Your task to perform on an android device: Open battery settings Image 0: 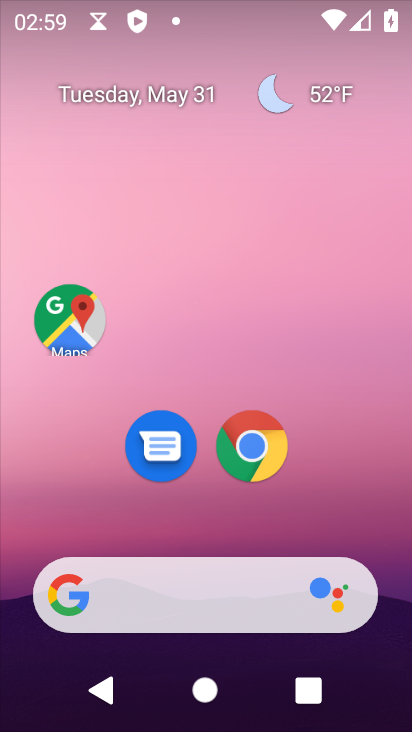
Step 0: drag from (318, 497) to (260, 12)
Your task to perform on an android device: Open battery settings Image 1: 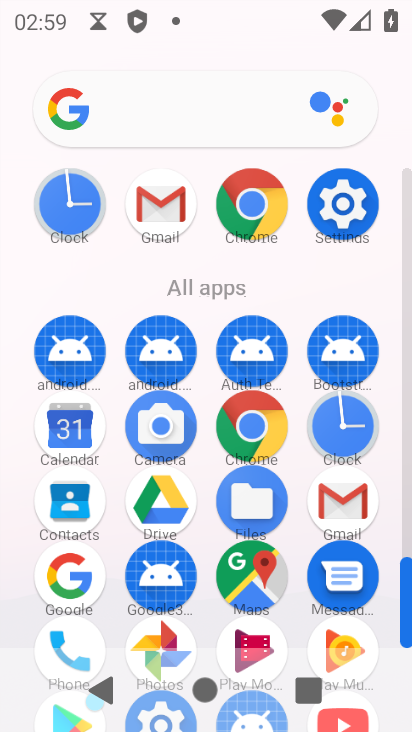
Step 1: click (344, 205)
Your task to perform on an android device: Open battery settings Image 2: 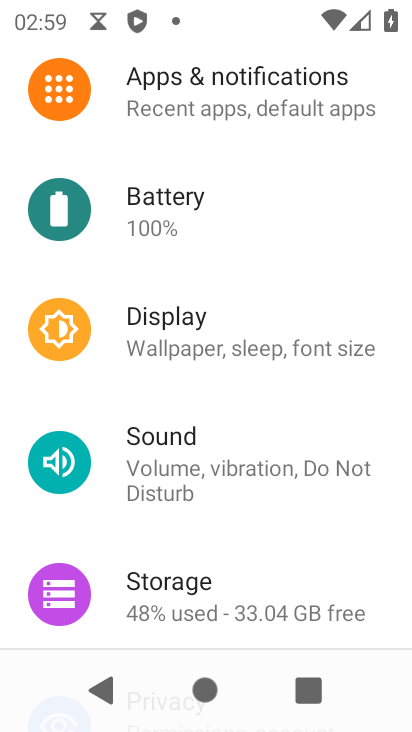
Step 2: click (203, 223)
Your task to perform on an android device: Open battery settings Image 3: 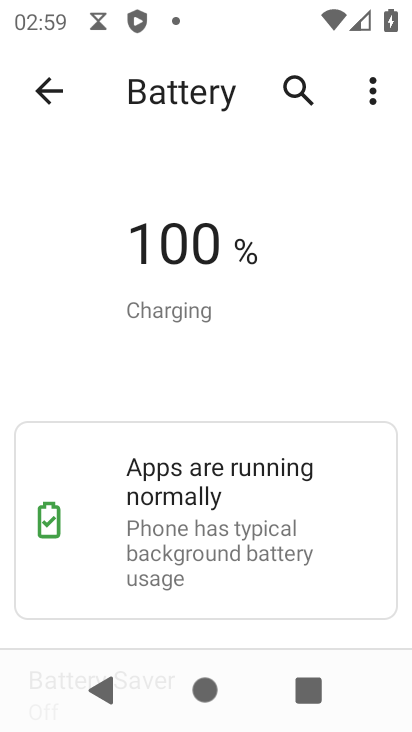
Step 3: task complete